Your task to perform on an android device: open chrome and create a bookmark for the current page Image 0: 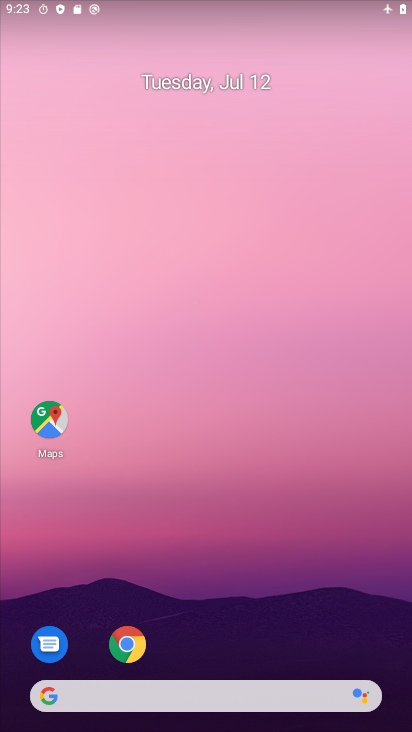
Step 0: click (121, 654)
Your task to perform on an android device: open chrome and create a bookmark for the current page Image 1: 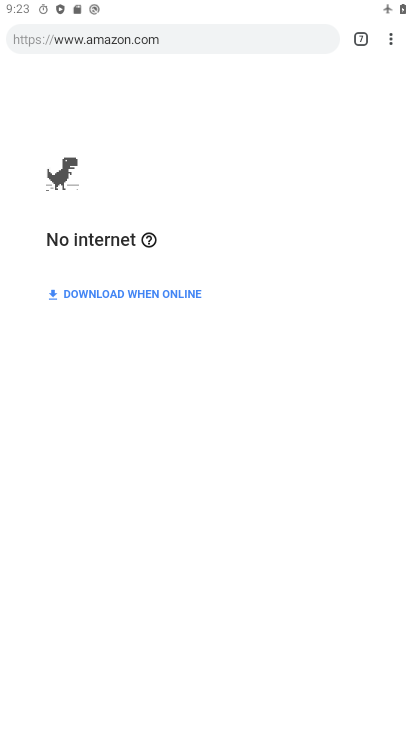
Step 1: click (389, 36)
Your task to perform on an android device: open chrome and create a bookmark for the current page Image 2: 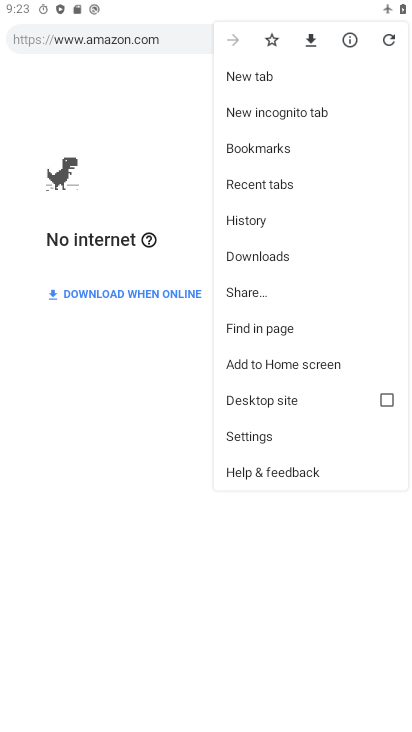
Step 2: click (137, 149)
Your task to perform on an android device: open chrome and create a bookmark for the current page Image 3: 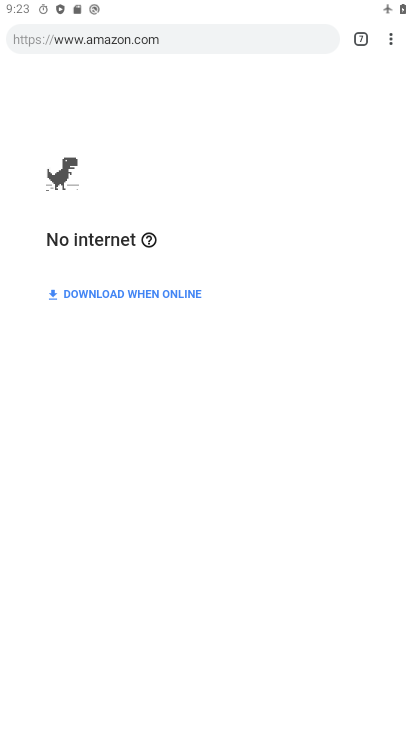
Step 3: click (353, 37)
Your task to perform on an android device: open chrome and create a bookmark for the current page Image 4: 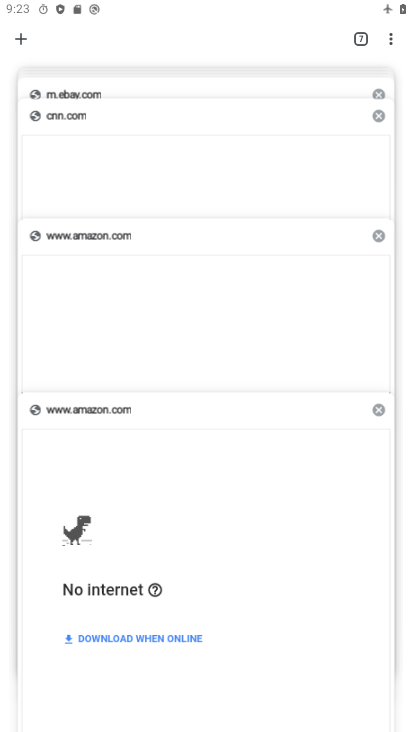
Step 4: click (25, 36)
Your task to perform on an android device: open chrome and create a bookmark for the current page Image 5: 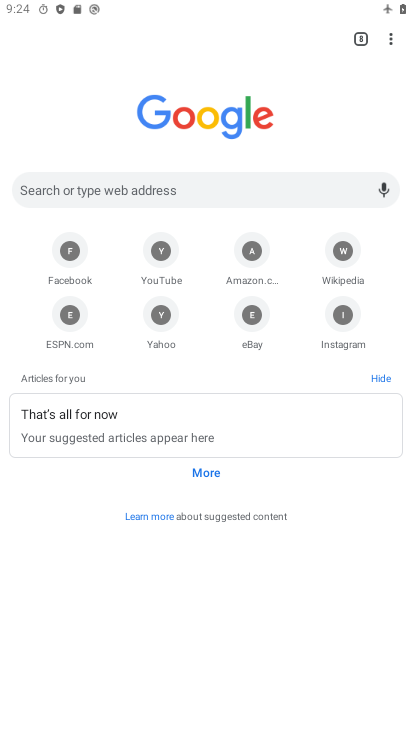
Step 5: task complete